Your task to perform on an android device: open app "Instagram" (install if not already installed) Image 0: 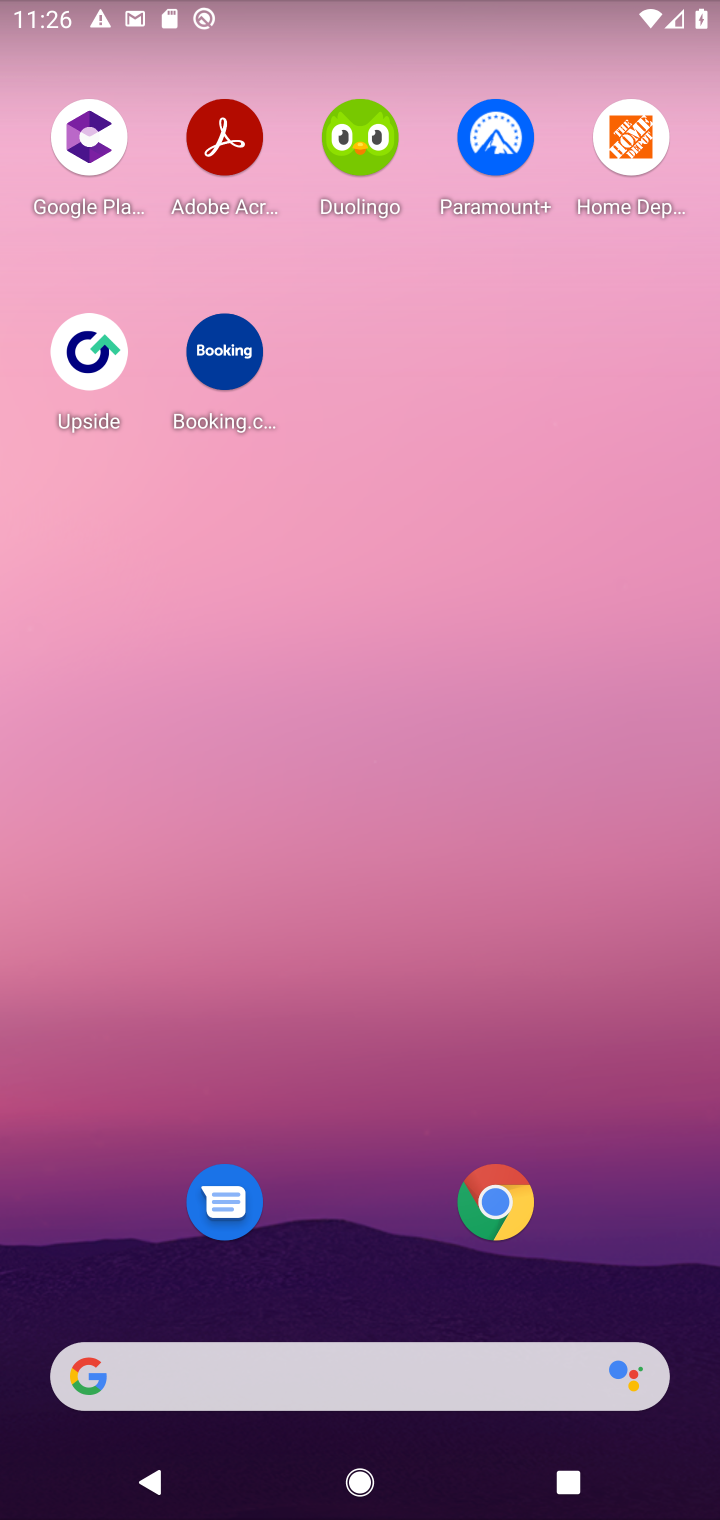
Step 0: drag from (361, 111) to (368, 6)
Your task to perform on an android device: open app "Instagram" (install if not already installed) Image 1: 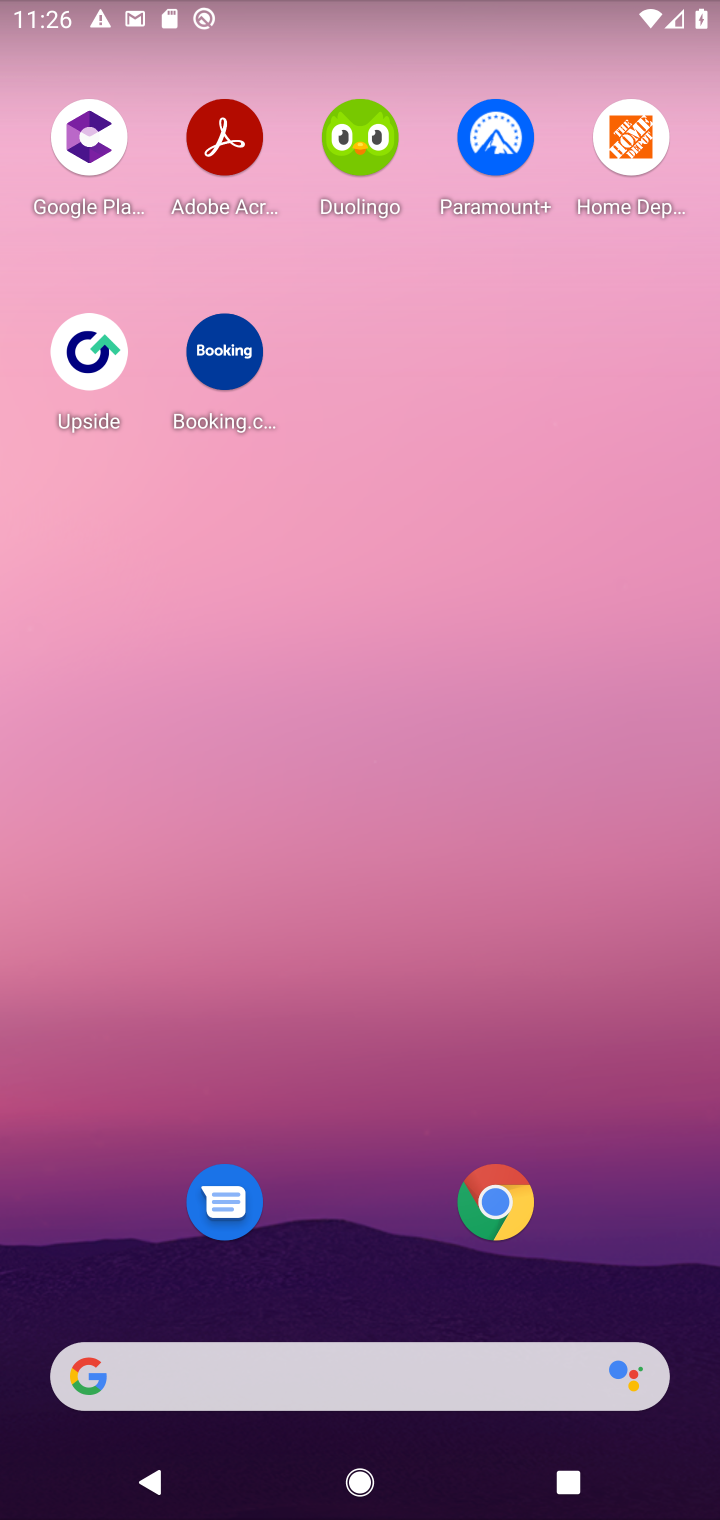
Step 1: drag from (338, 51) to (481, 56)
Your task to perform on an android device: open app "Instagram" (install if not already installed) Image 2: 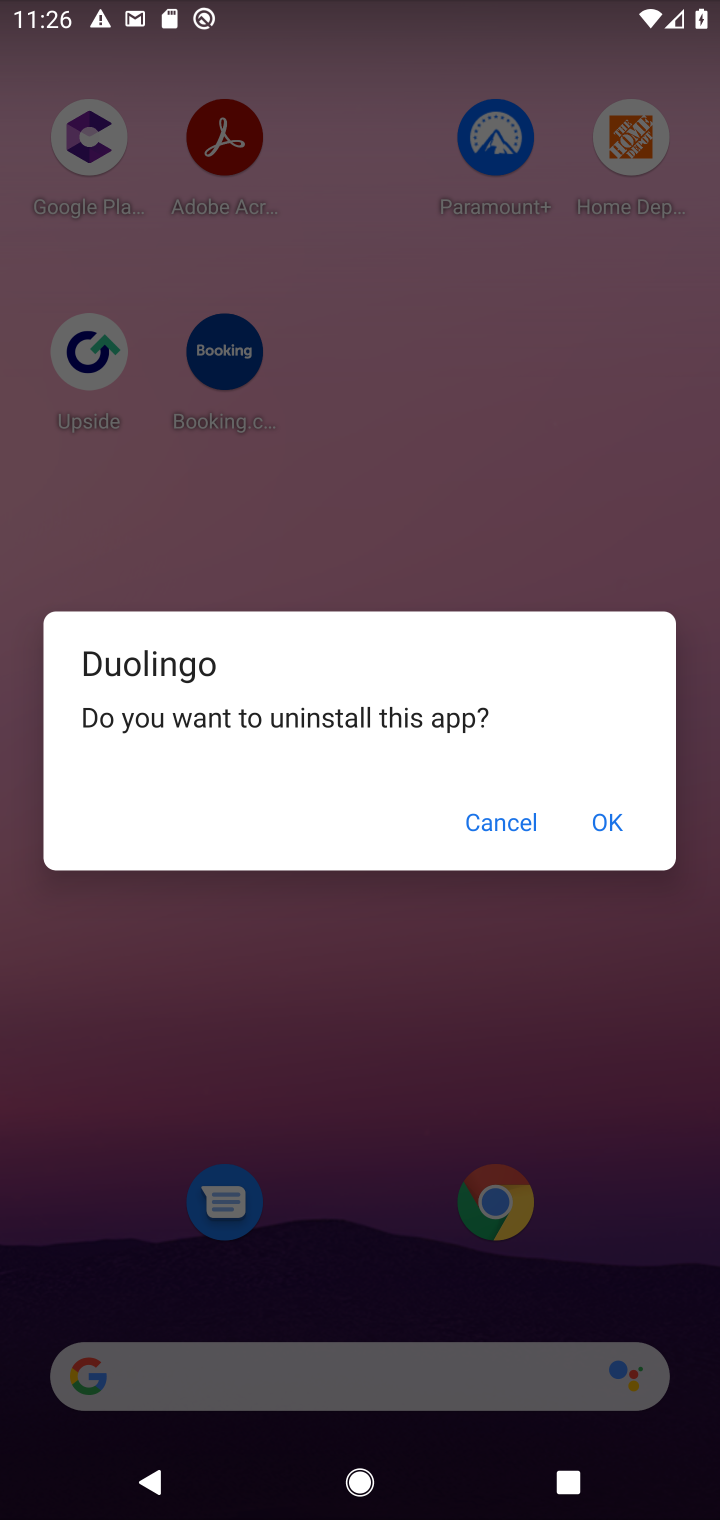
Step 2: click (499, 812)
Your task to perform on an android device: open app "Instagram" (install if not already installed) Image 3: 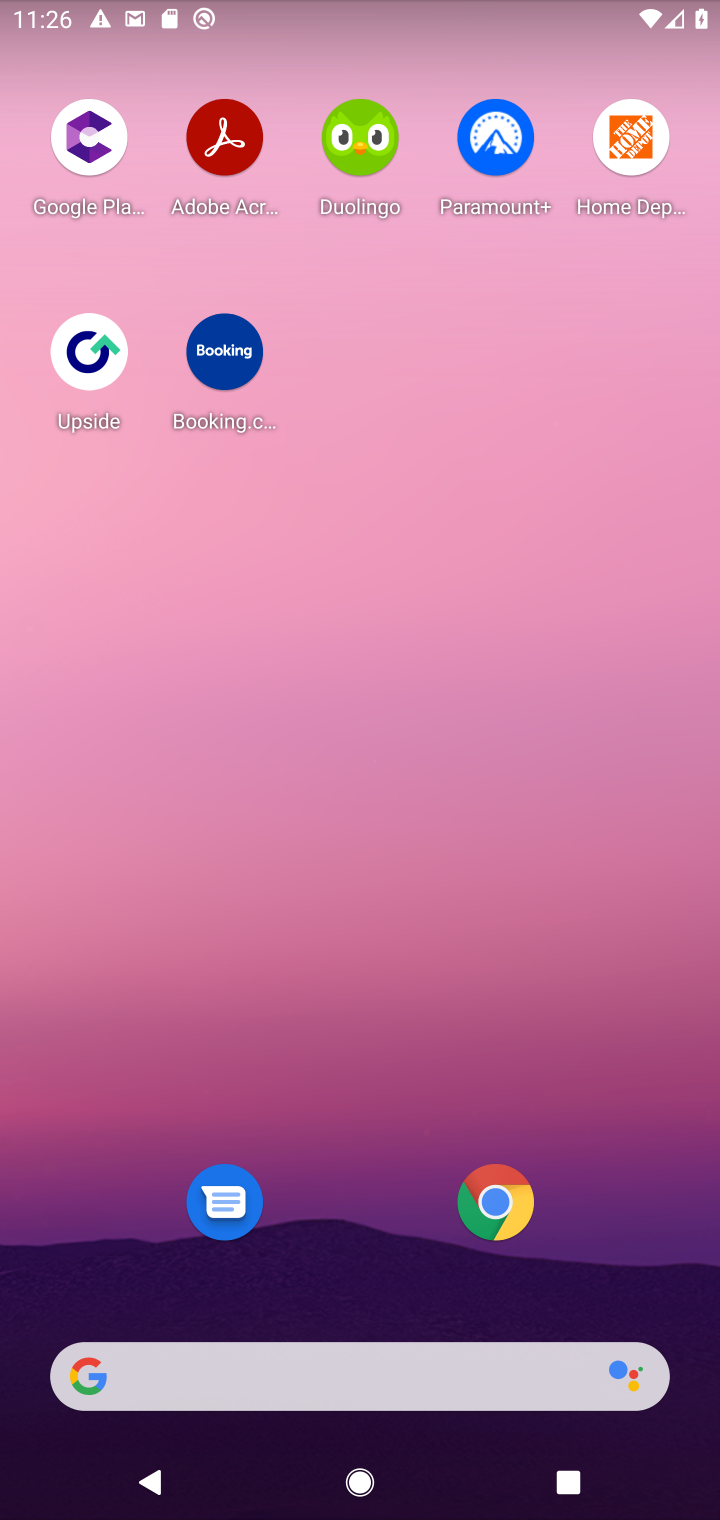
Step 3: drag from (353, 711) to (353, 193)
Your task to perform on an android device: open app "Instagram" (install if not already installed) Image 4: 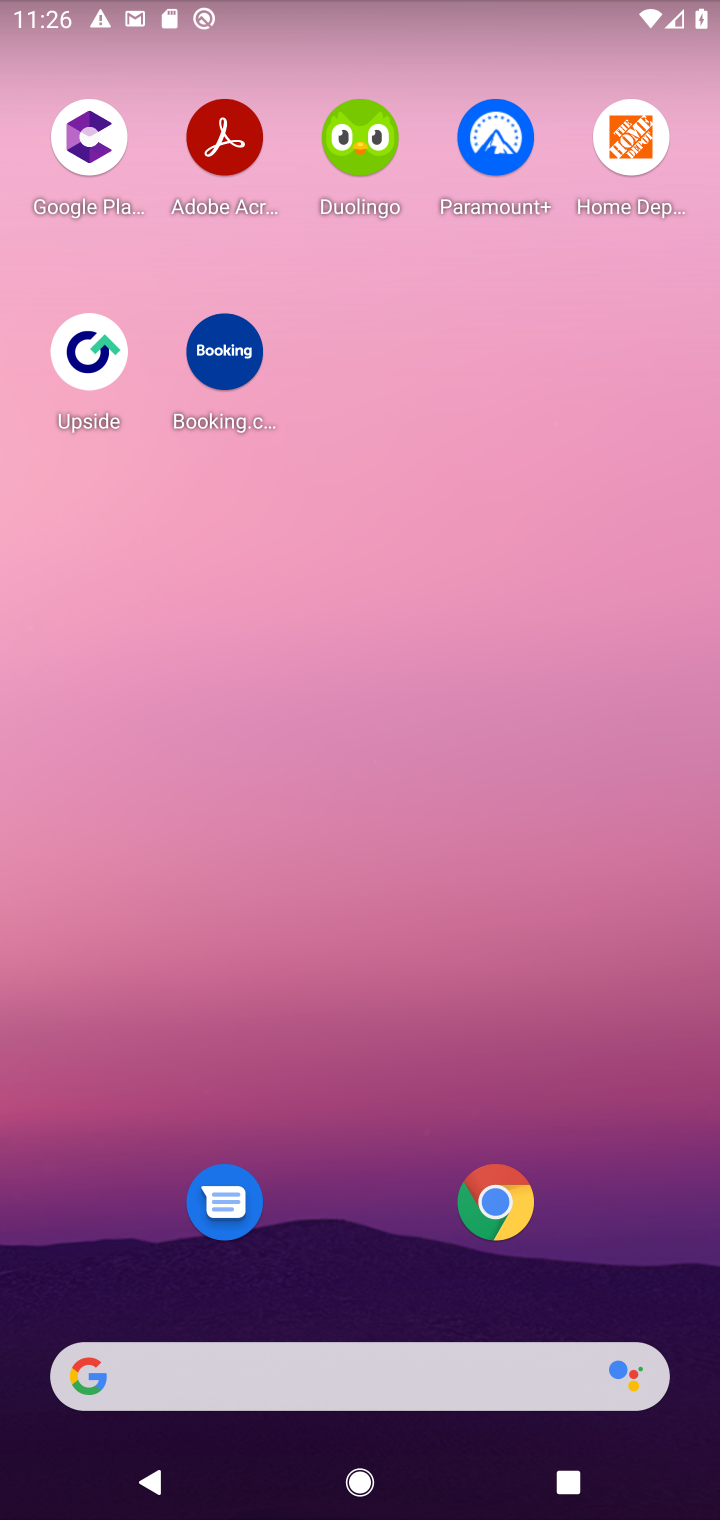
Step 4: drag from (335, 967) to (347, 104)
Your task to perform on an android device: open app "Instagram" (install if not already installed) Image 5: 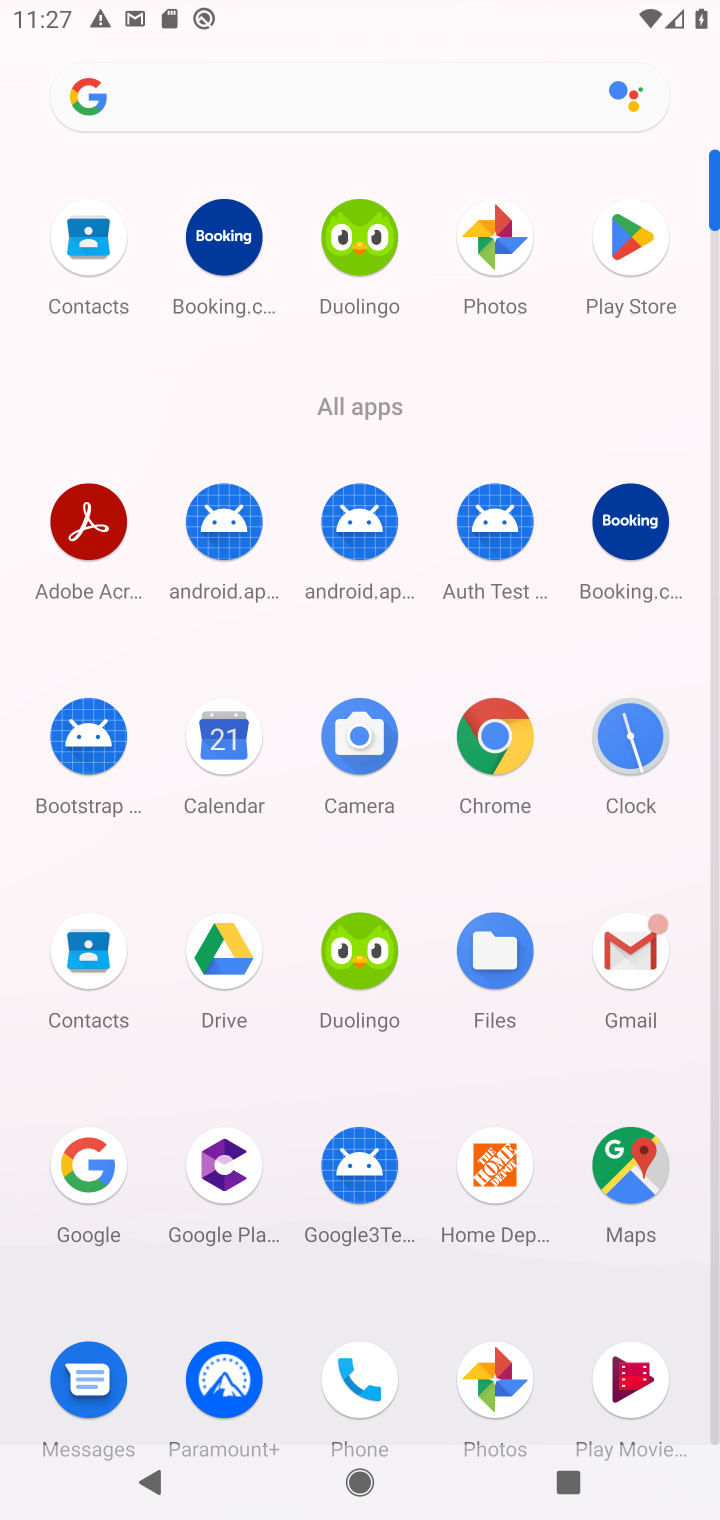
Step 5: click (632, 236)
Your task to perform on an android device: open app "Instagram" (install if not already installed) Image 6: 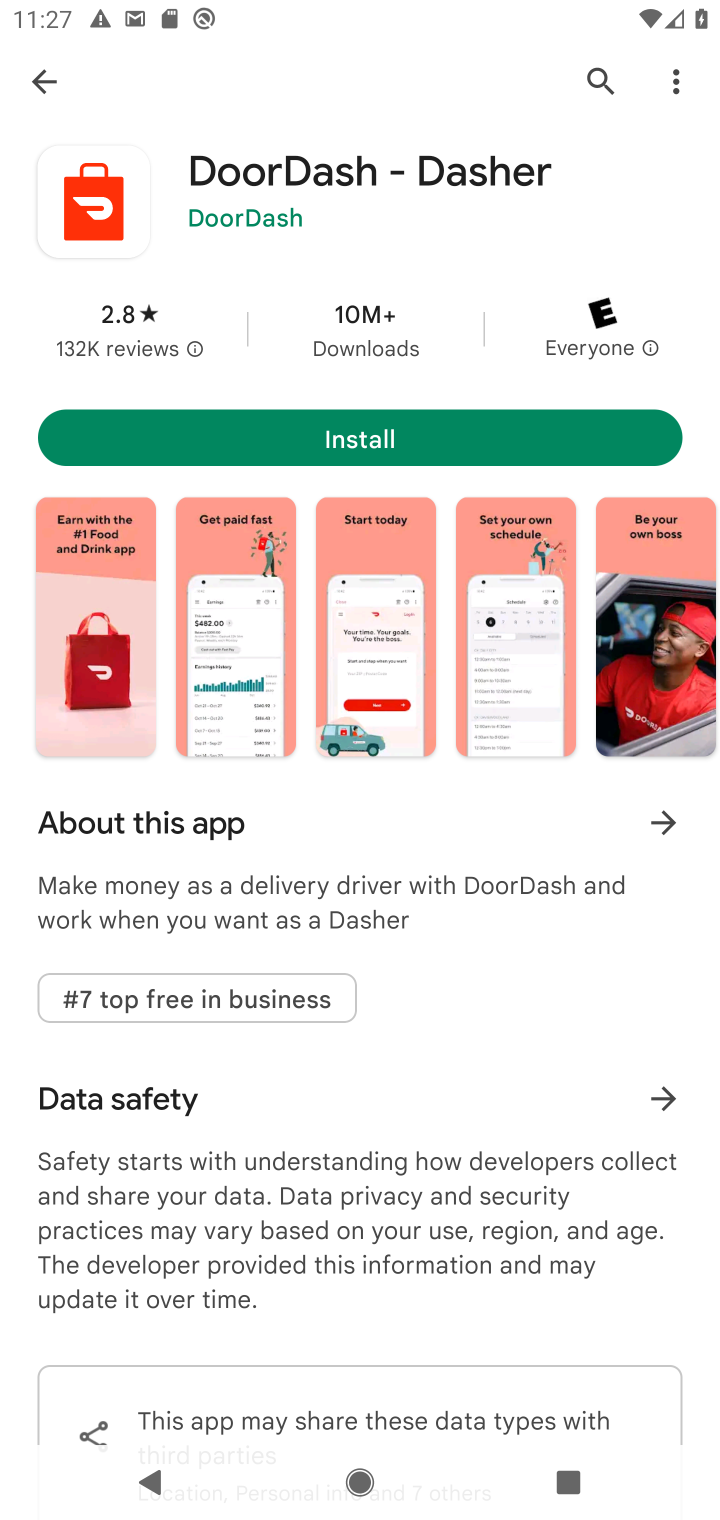
Step 6: click (592, 72)
Your task to perform on an android device: open app "Instagram" (install if not already installed) Image 7: 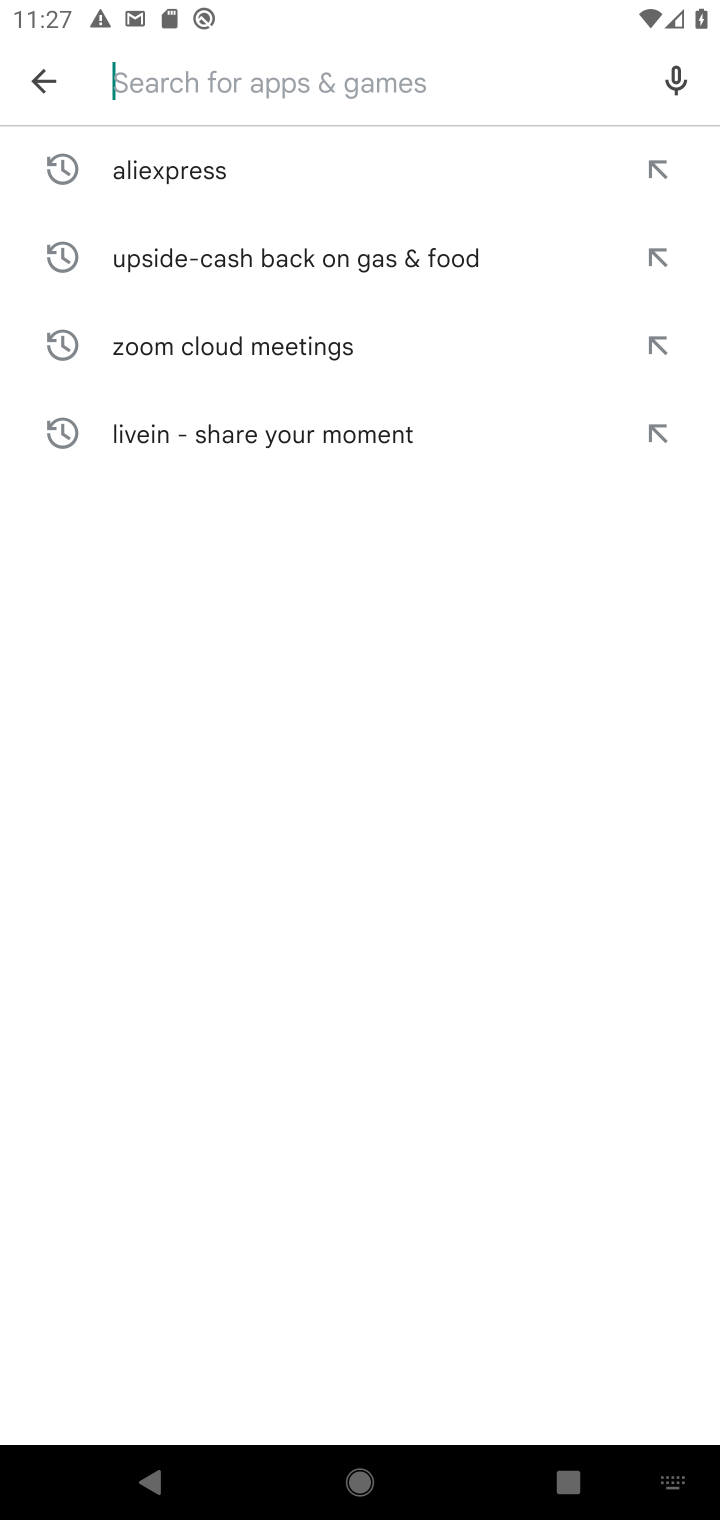
Step 7: type "Instagram"
Your task to perform on an android device: open app "Instagram" (install if not already installed) Image 8: 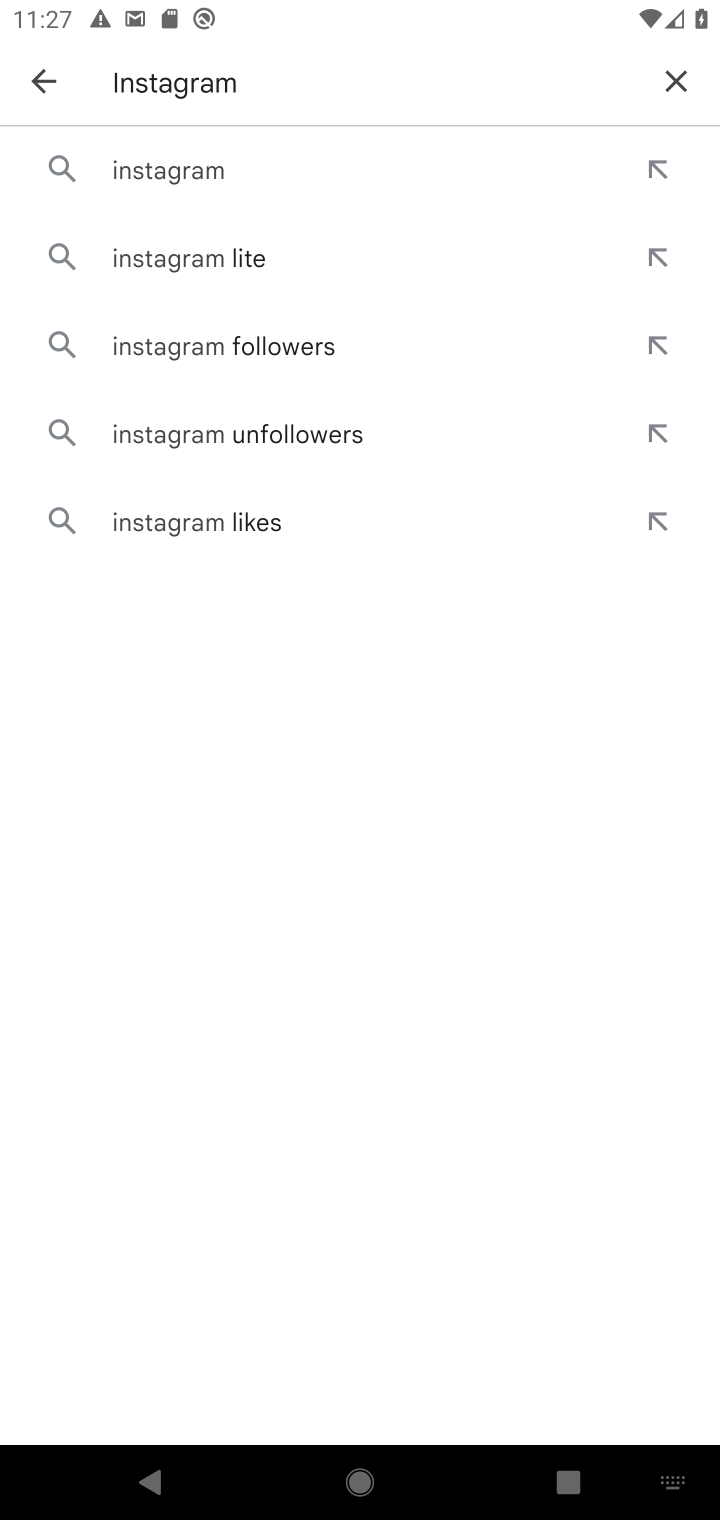
Step 8: click (206, 178)
Your task to perform on an android device: open app "Instagram" (install if not already installed) Image 9: 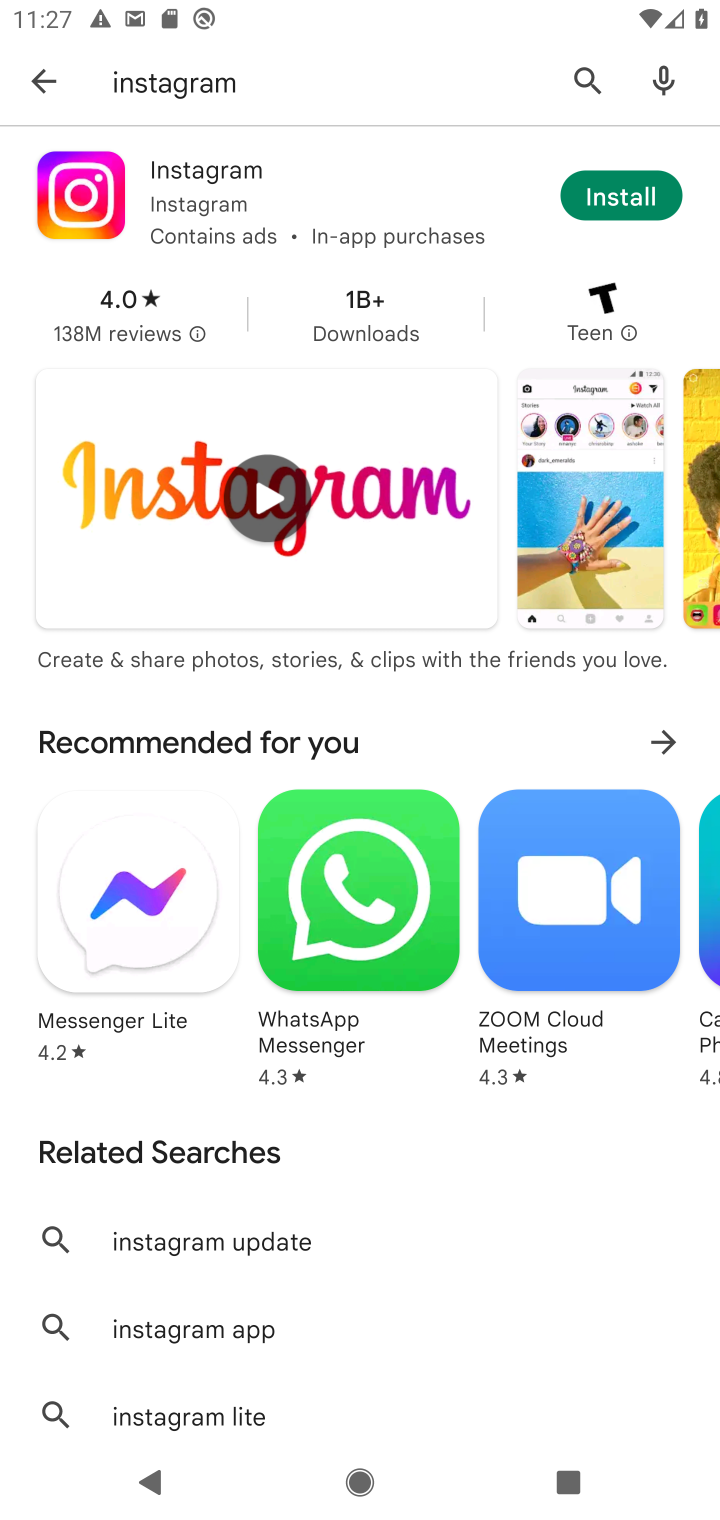
Step 9: click (628, 202)
Your task to perform on an android device: open app "Instagram" (install if not already installed) Image 10: 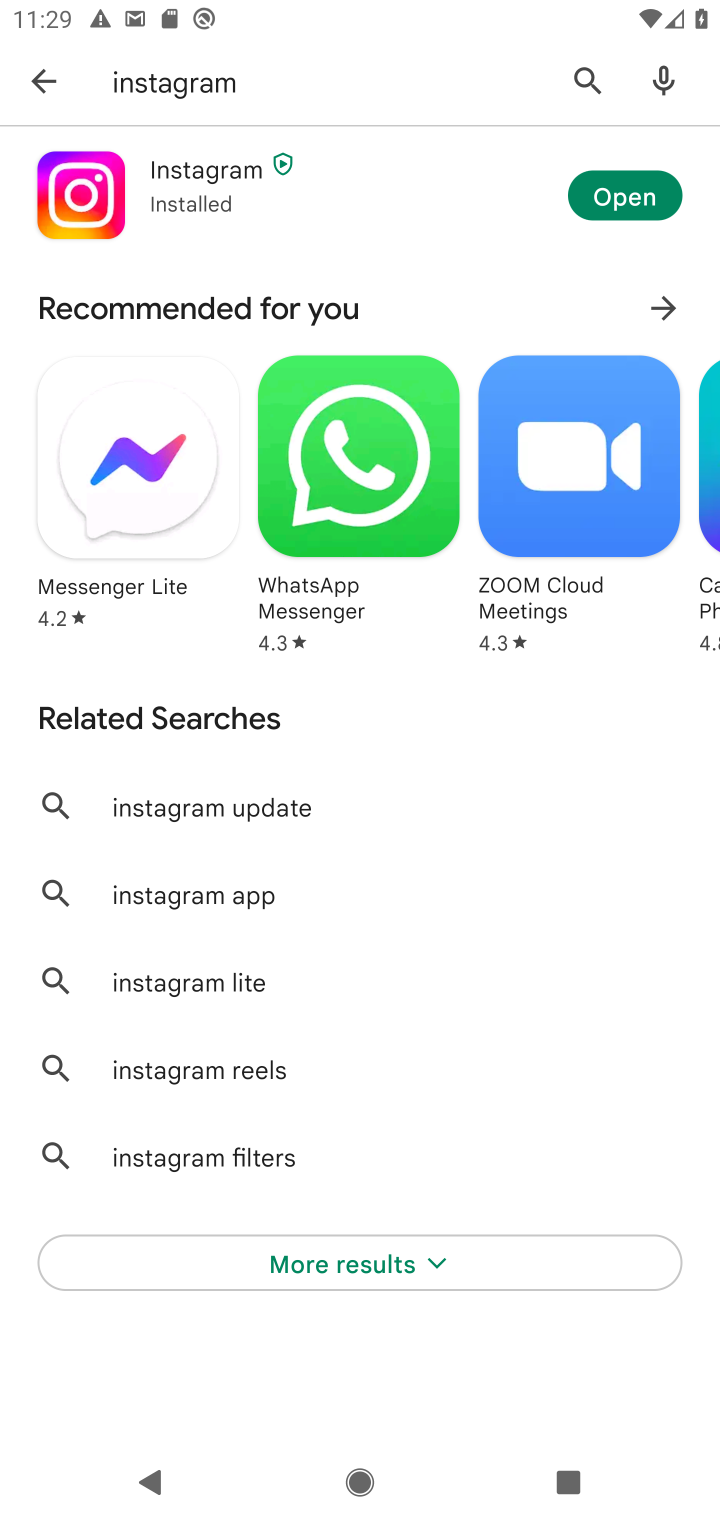
Step 10: click (625, 198)
Your task to perform on an android device: open app "Instagram" (install if not already installed) Image 11: 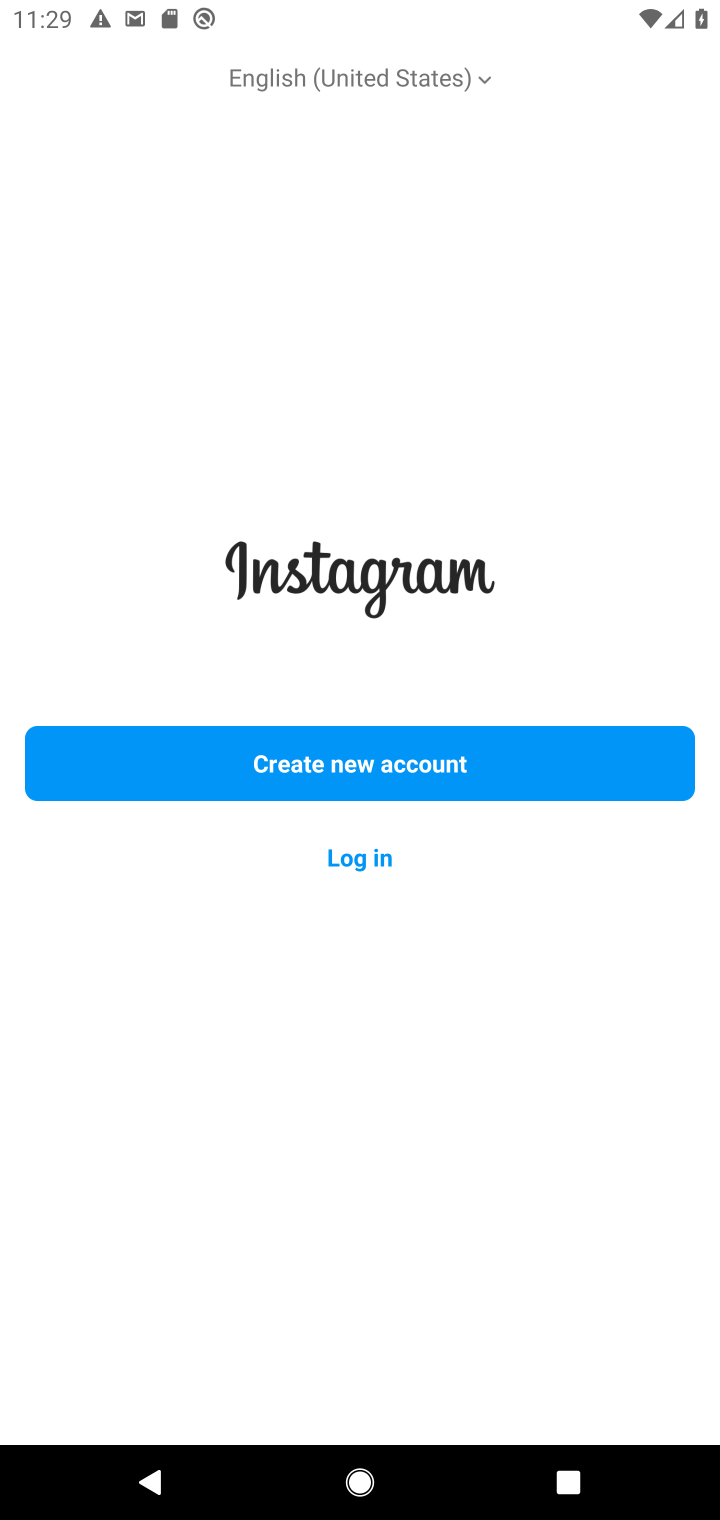
Step 11: task complete